Your task to perform on an android device: Open calendar and show me the first week of next month Image 0: 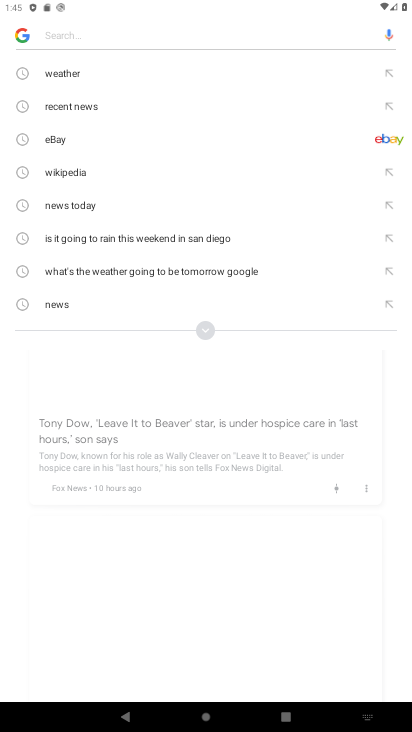
Step 0: press home button
Your task to perform on an android device: Open calendar and show me the first week of next month Image 1: 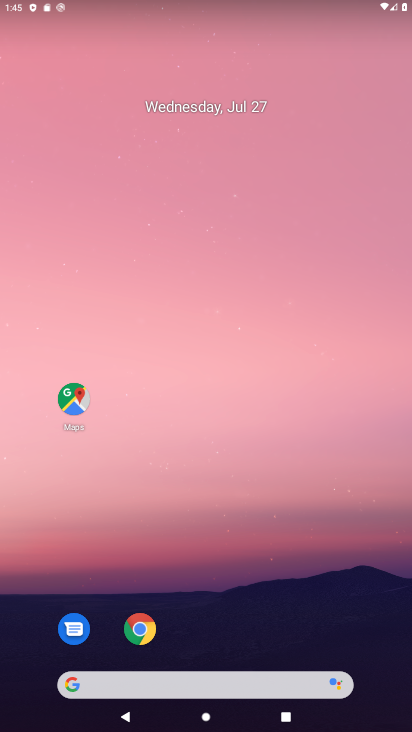
Step 1: drag from (171, 684) to (194, 45)
Your task to perform on an android device: Open calendar and show me the first week of next month Image 2: 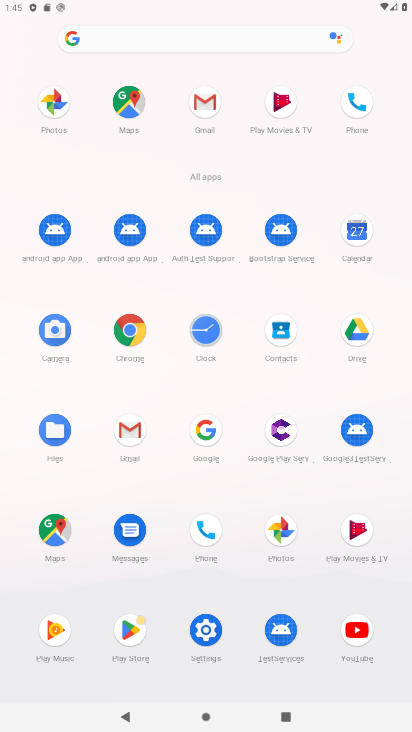
Step 2: click (355, 232)
Your task to perform on an android device: Open calendar and show me the first week of next month Image 3: 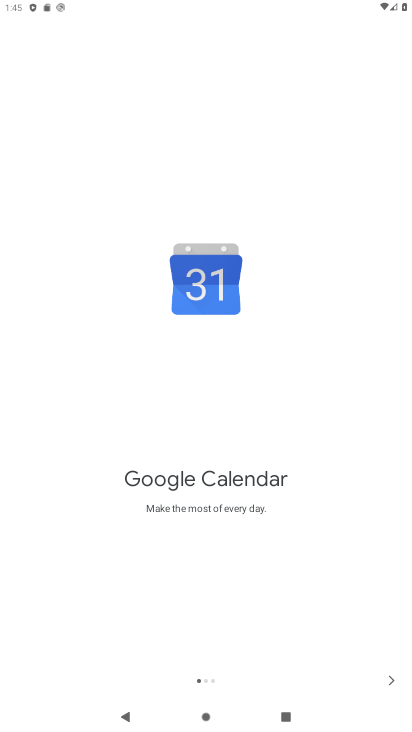
Step 3: click (391, 683)
Your task to perform on an android device: Open calendar and show me the first week of next month Image 4: 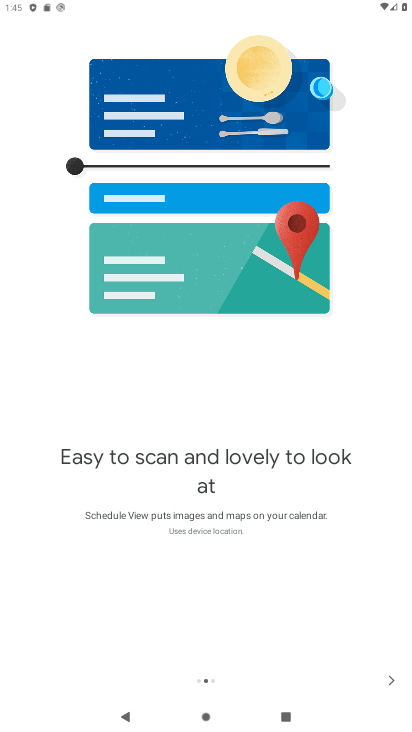
Step 4: click (391, 683)
Your task to perform on an android device: Open calendar and show me the first week of next month Image 5: 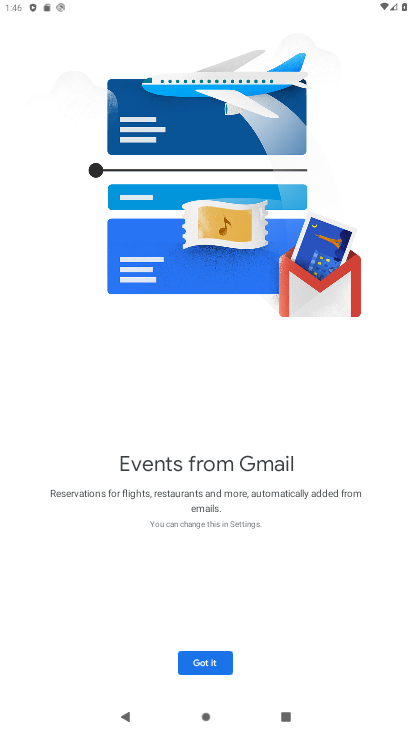
Step 5: click (207, 660)
Your task to perform on an android device: Open calendar and show me the first week of next month Image 6: 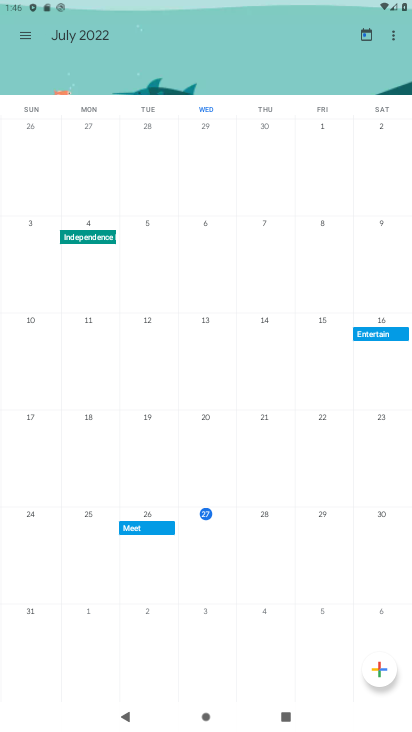
Step 6: drag from (373, 478) to (11, 480)
Your task to perform on an android device: Open calendar and show me the first week of next month Image 7: 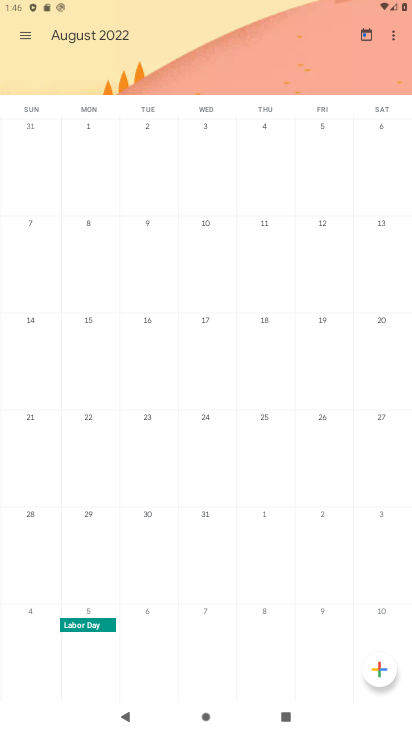
Step 7: click (108, 185)
Your task to perform on an android device: Open calendar and show me the first week of next month Image 8: 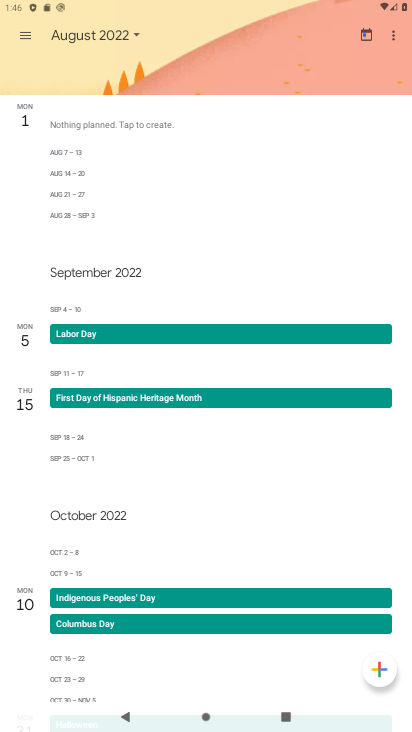
Step 8: click (31, 34)
Your task to perform on an android device: Open calendar and show me the first week of next month Image 9: 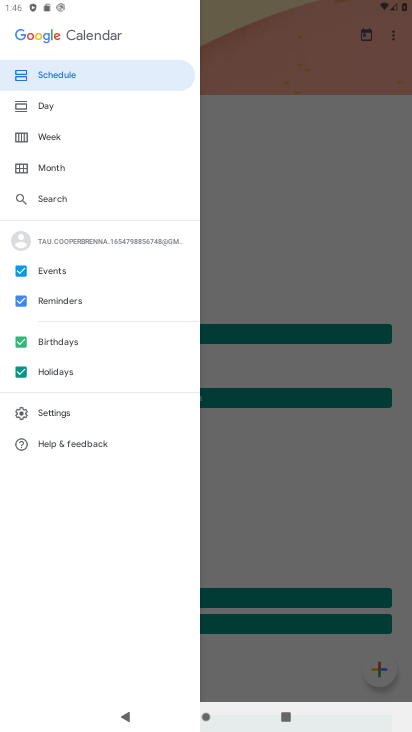
Step 9: click (50, 132)
Your task to perform on an android device: Open calendar and show me the first week of next month Image 10: 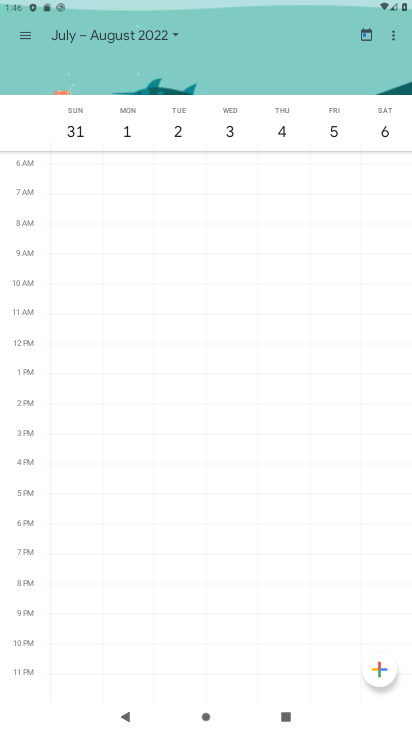
Step 10: task complete